Your task to perform on an android device: open app "Adobe Express: Graphic Design" Image 0: 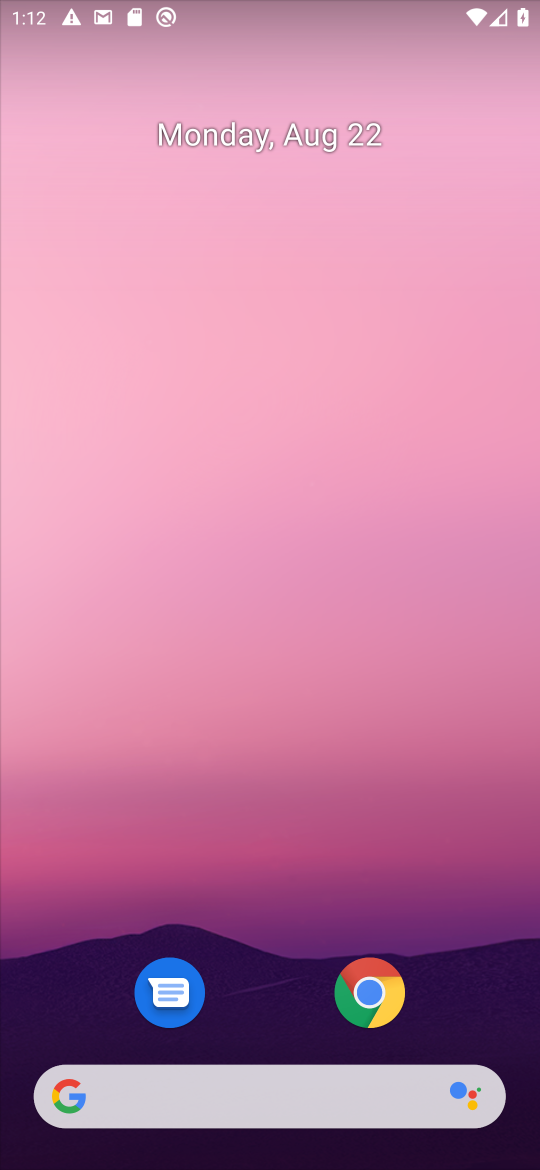
Step 0: drag from (275, 1054) to (291, 195)
Your task to perform on an android device: open app "Adobe Express: Graphic Design" Image 1: 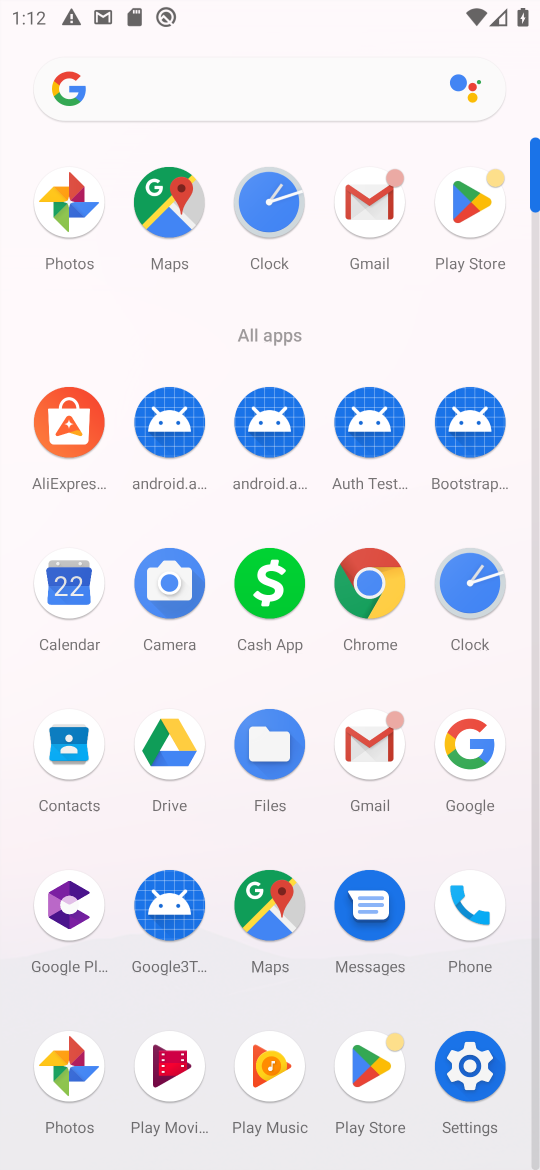
Step 1: click (457, 203)
Your task to perform on an android device: open app "Adobe Express: Graphic Design" Image 2: 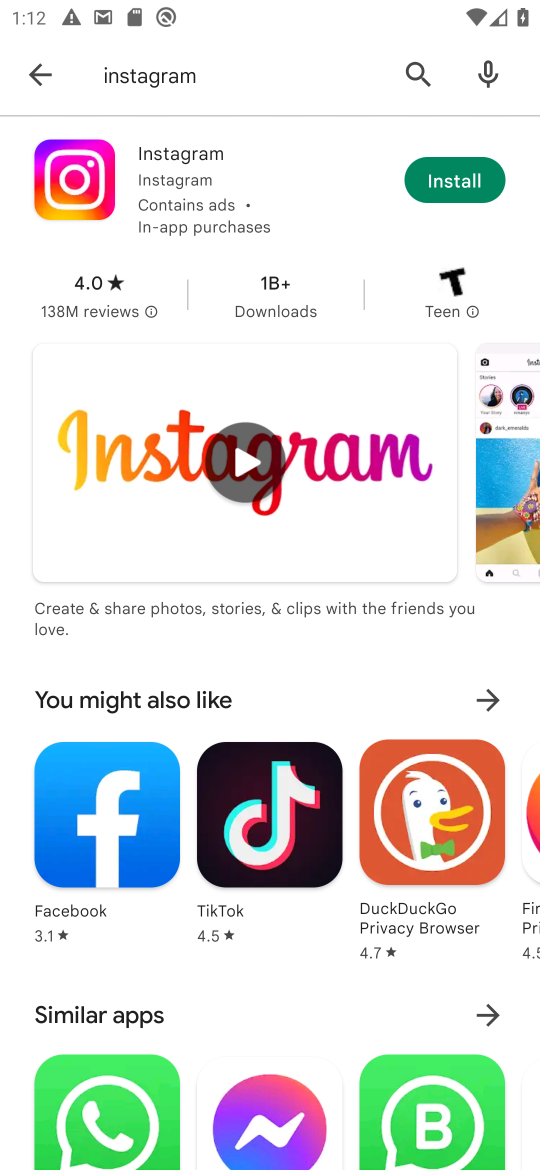
Step 2: click (411, 69)
Your task to perform on an android device: open app "Adobe Express: Graphic Design" Image 3: 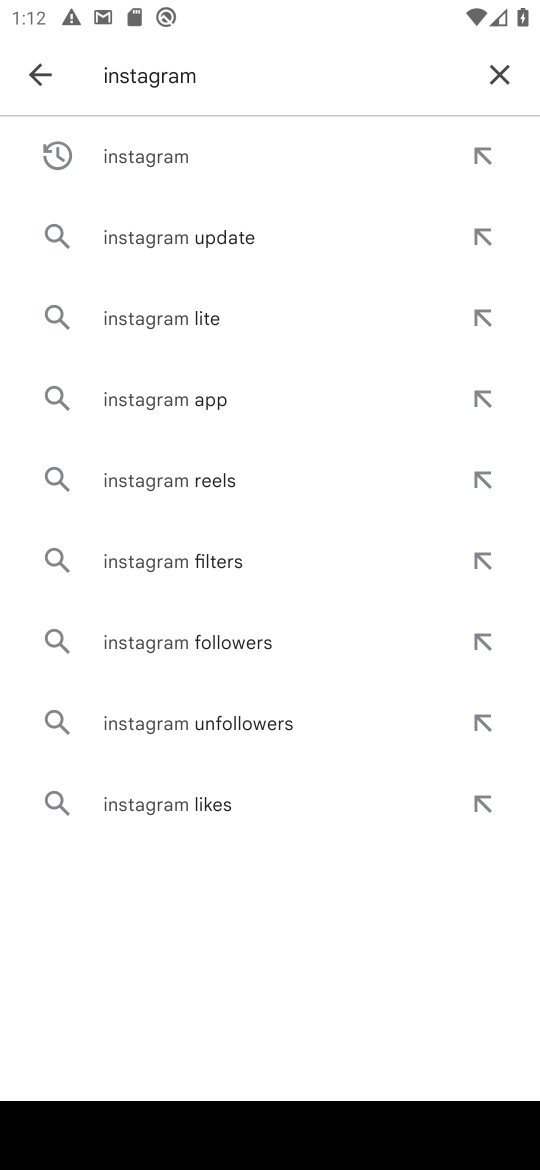
Step 3: click (503, 72)
Your task to perform on an android device: open app "Adobe Express: Graphic Design" Image 4: 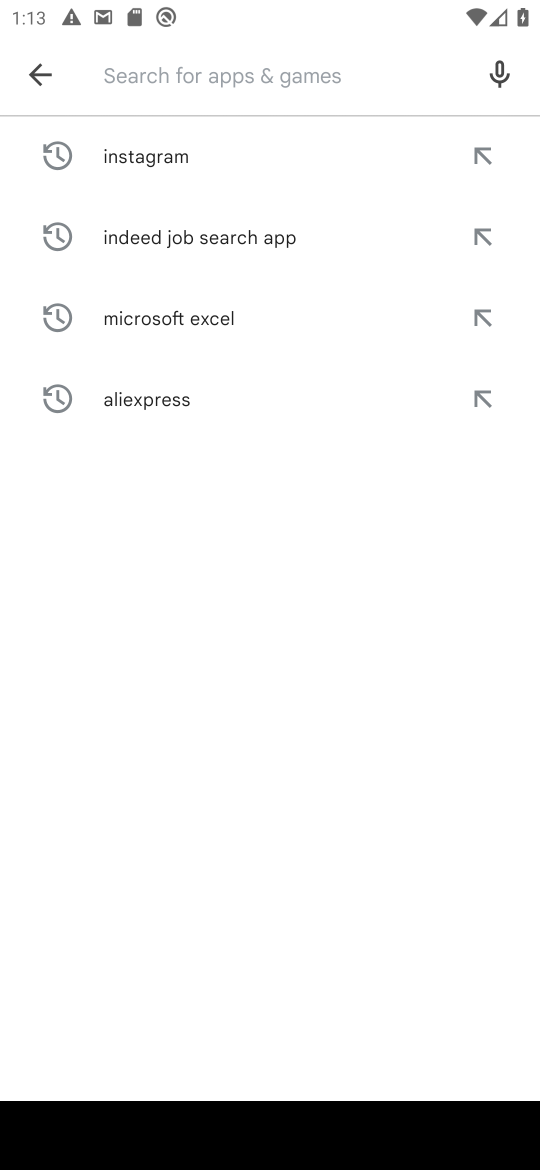
Step 4: type "Adobe Express: Graphic Design"
Your task to perform on an android device: open app "Adobe Express: Graphic Design" Image 5: 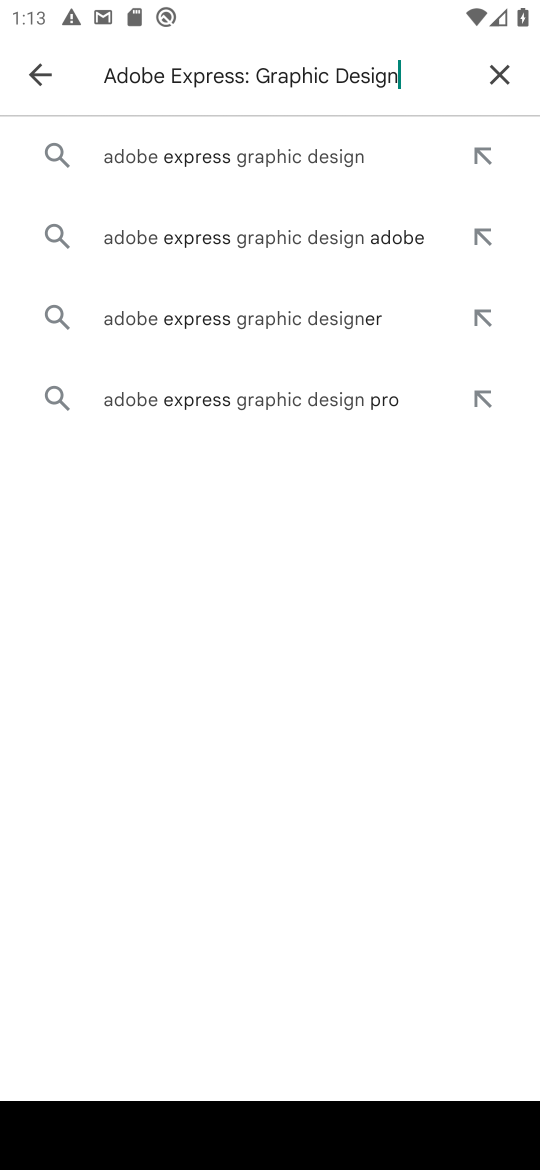
Step 5: click (289, 155)
Your task to perform on an android device: open app "Adobe Express: Graphic Design" Image 6: 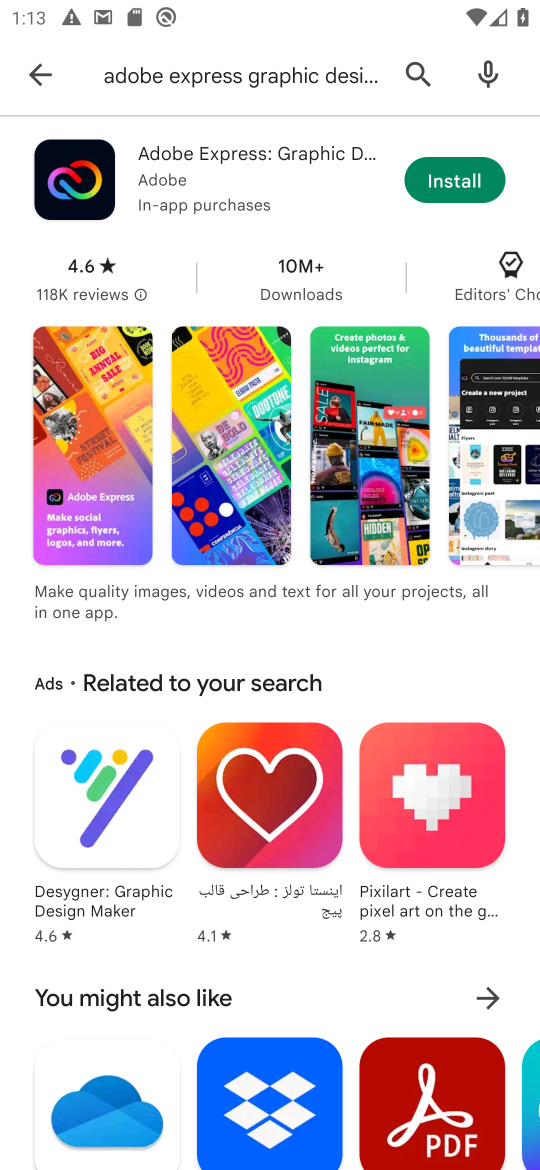
Step 6: click (479, 193)
Your task to perform on an android device: open app "Adobe Express: Graphic Design" Image 7: 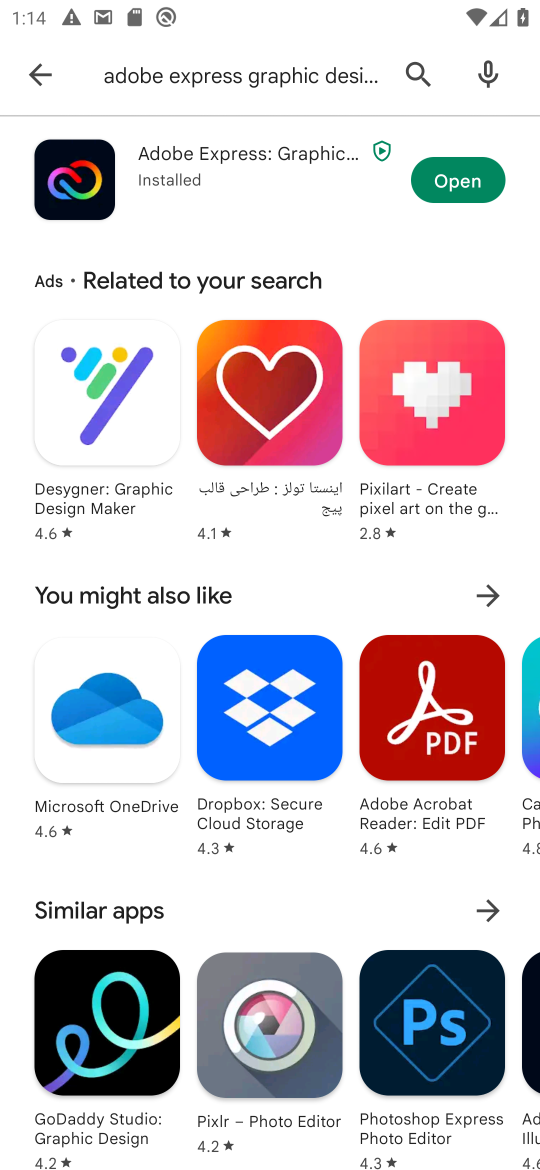
Step 7: click (442, 184)
Your task to perform on an android device: open app "Adobe Express: Graphic Design" Image 8: 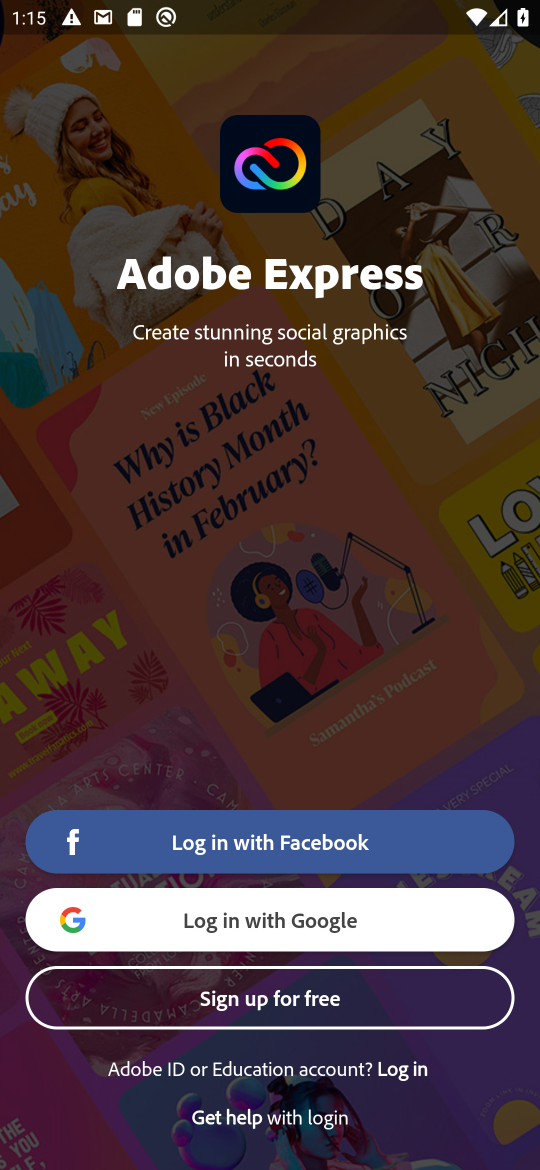
Step 8: task complete